Your task to perform on an android device: Open Google Image 0: 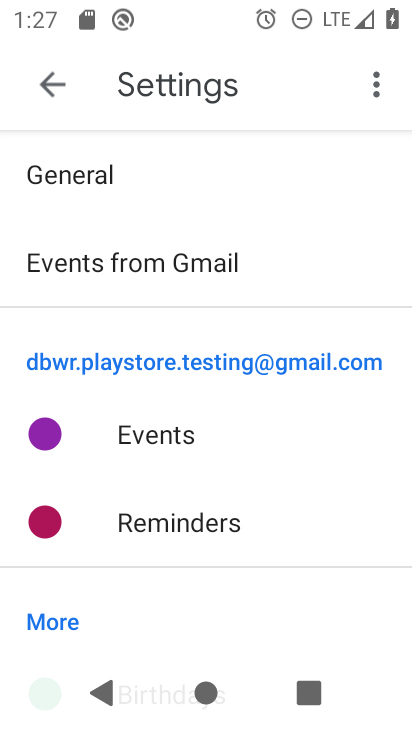
Step 0: press home button
Your task to perform on an android device: Open Google Image 1: 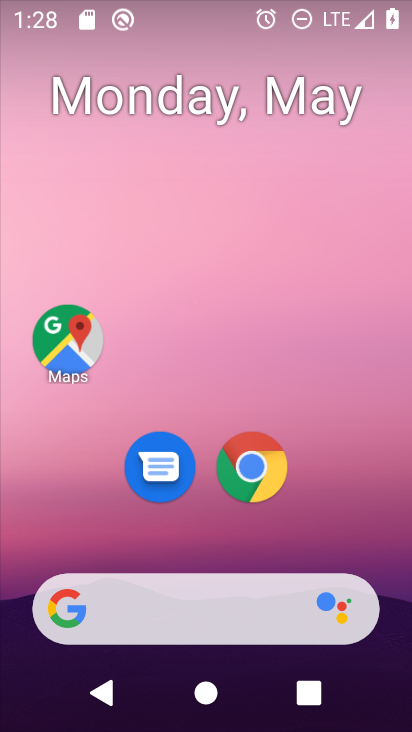
Step 1: drag from (357, 553) to (323, 12)
Your task to perform on an android device: Open Google Image 2: 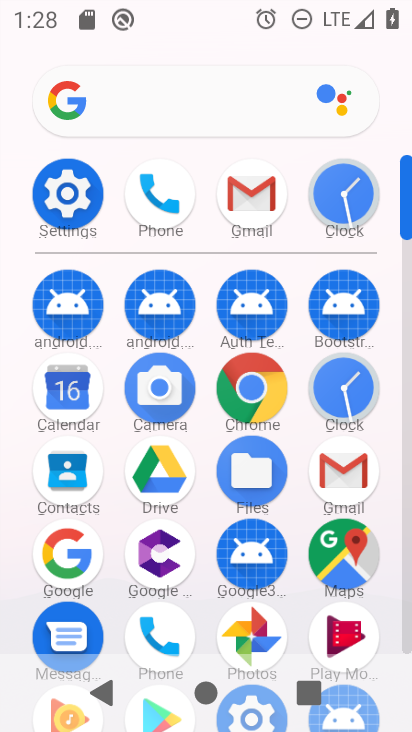
Step 2: click (72, 557)
Your task to perform on an android device: Open Google Image 3: 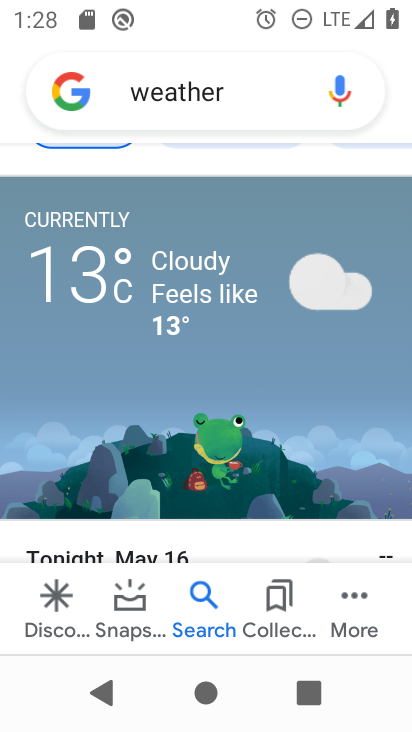
Step 3: task complete